Your task to perform on an android device: Open Youtube and go to the subscriptions tab Image 0: 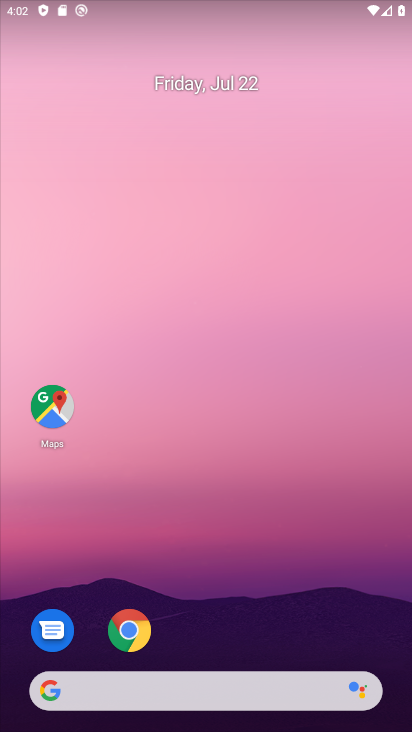
Step 0: drag from (205, 646) to (253, 8)
Your task to perform on an android device: Open Youtube and go to the subscriptions tab Image 1: 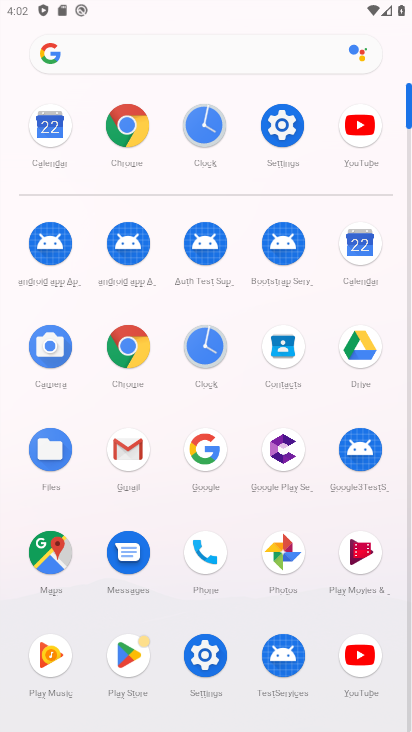
Step 1: click (356, 659)
Your task to perform on an android device: Open Youtube and go to the subscriptions tab Image 2: 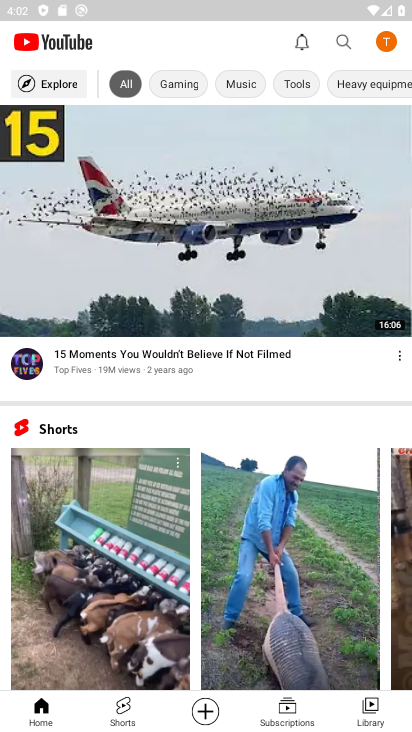
Step 2: click (356, 659)
Your task to perform on an android device: Open Youtube and go to the subscriptions tab Image 3: 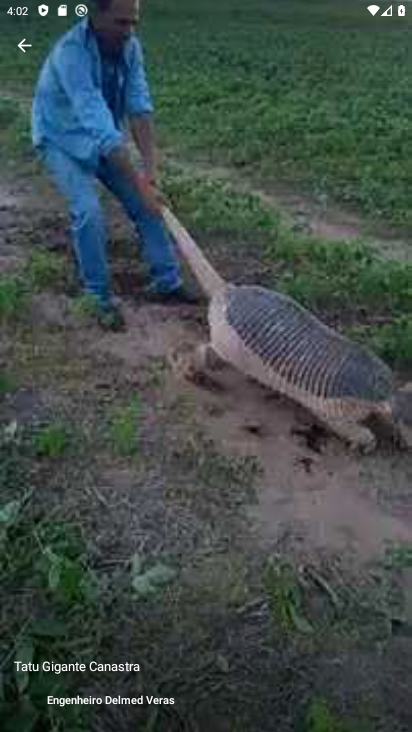
Step 3: click (283, 713)
Your task to perform on an android device: Open Youtube and go to the subscriptions tab Image 4: 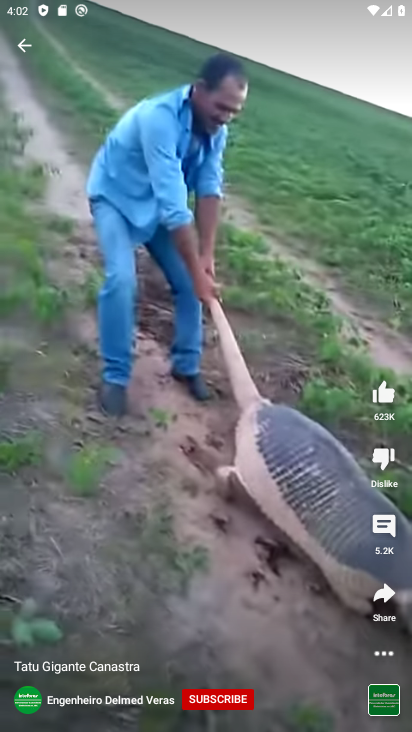
Step 4: press back button
Your task to perform on an android device: Open Youtube and go to the subscriptions tab Image 5: 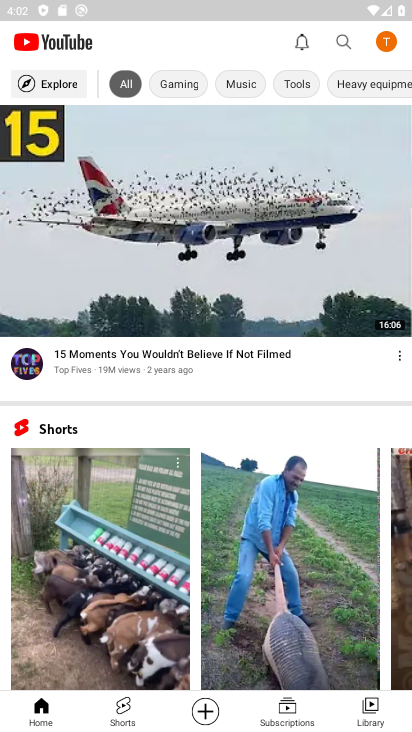
Step 5: click (286, 707)
Your task to perform on an android device: Open Youtube and go to the subscriptions tab Image 6: 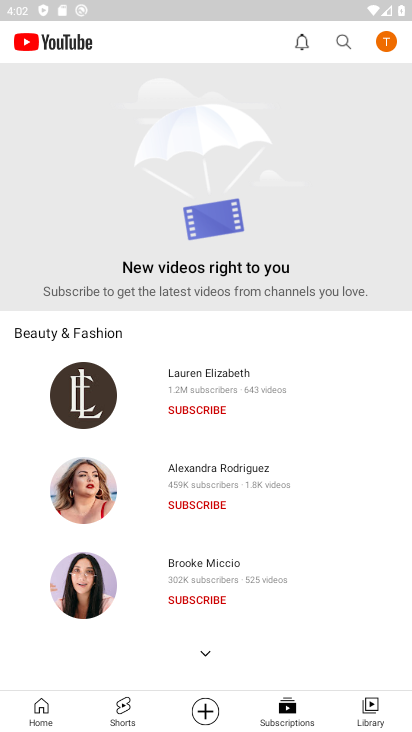
Step 6: task complete